Your task to perform on an android device: Check the weather Image 0: 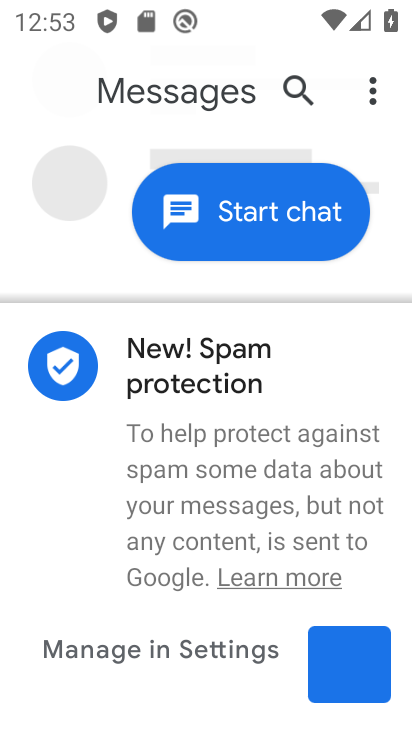
Step 0: press home button
Your task to perform on an android device: Check the weather Image 1: 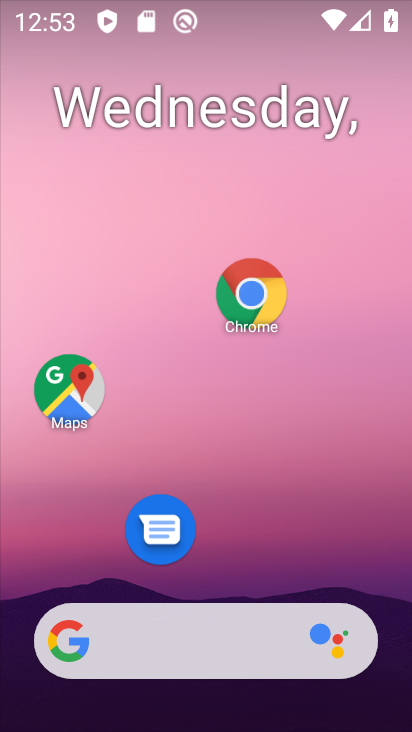
Step 1: drag from (227, 532) to (286, 203)
Your task to perform on an android device: Check the weather Image 2: 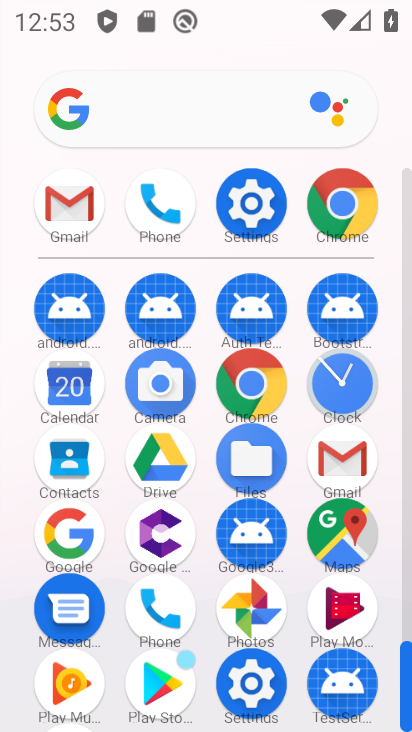
Step 2: click (409, 405)
Your task to perform on an android device: Check the weather Image 3: 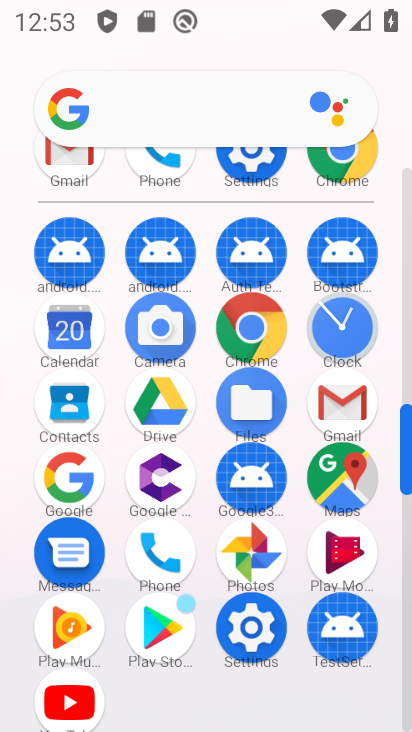
Step 3: click (72, 485)
Your task to perform on an android device: Check the weather Image 4: 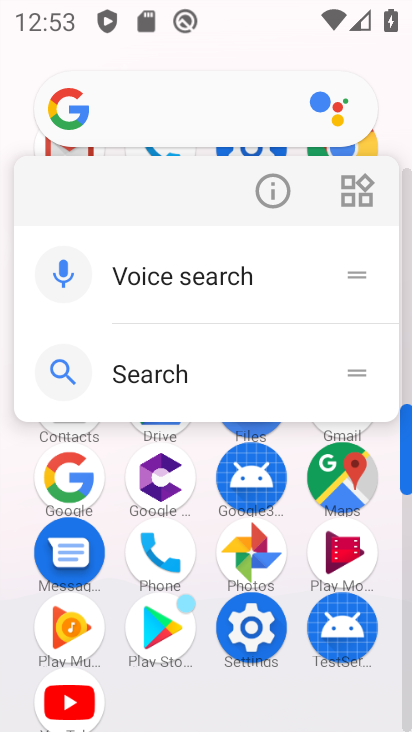
Step 4: click (75, 489)
Your task to perform on an android device: Check the weather Image 5: 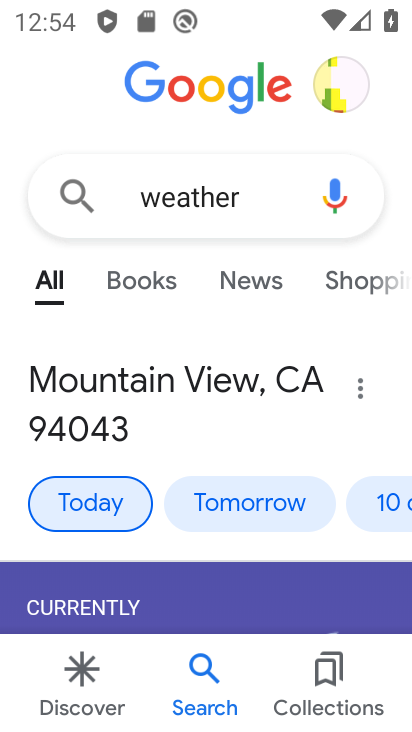
Step 5: task complete